Your task to perform on an android device: What's the time in San Francisco? Image 0: 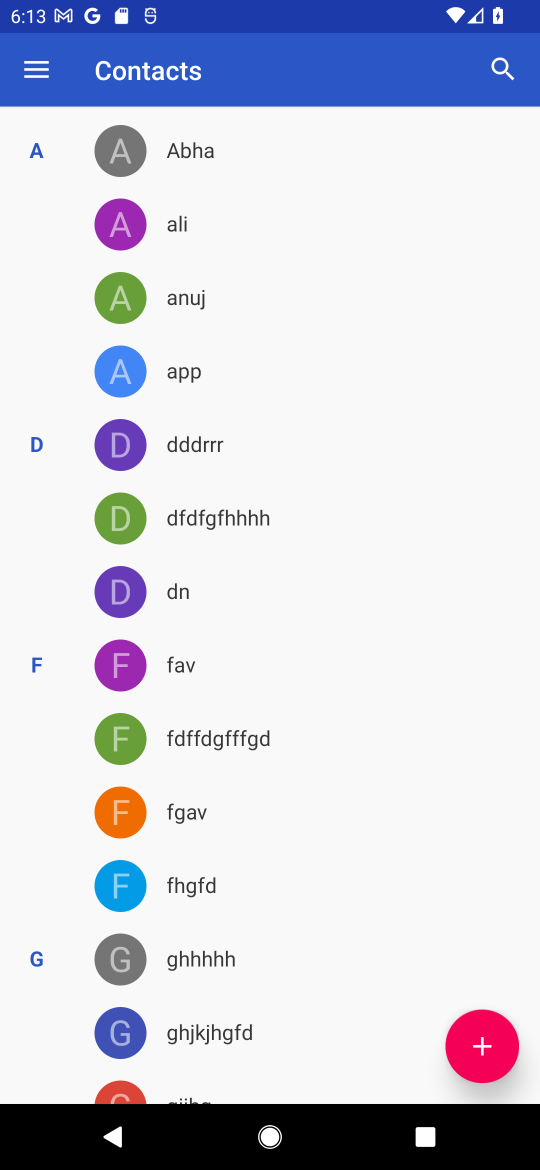
Step 0: press home button
Your task to perform on an android device: What's the time in San Francisco? Image 1: 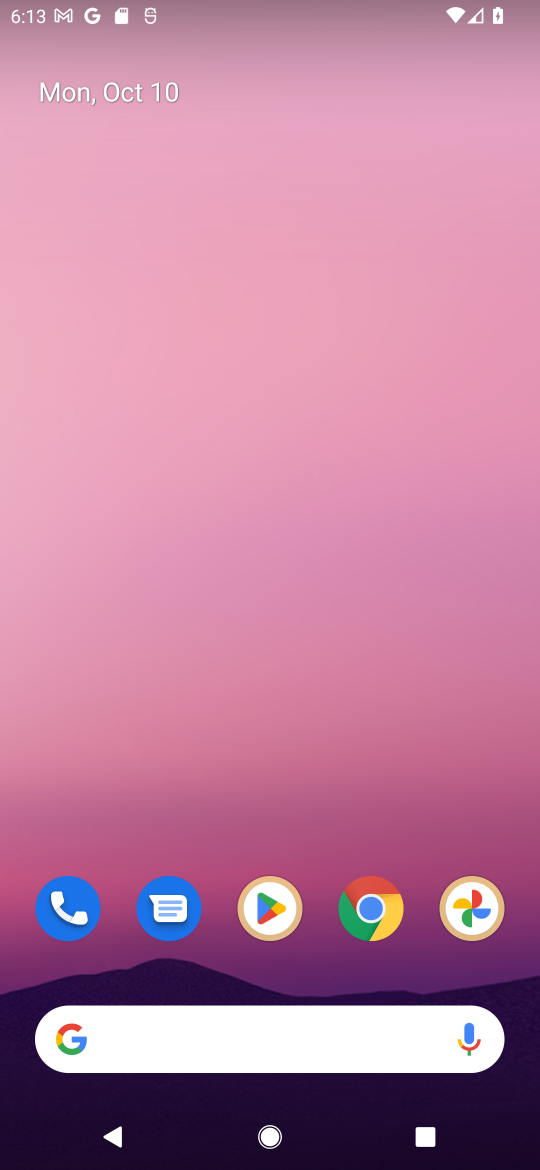
Step 1: drag from (296, 966) to (147, 125)
Your task to perform on an android device: What's the time in San Francisco? Image 2: 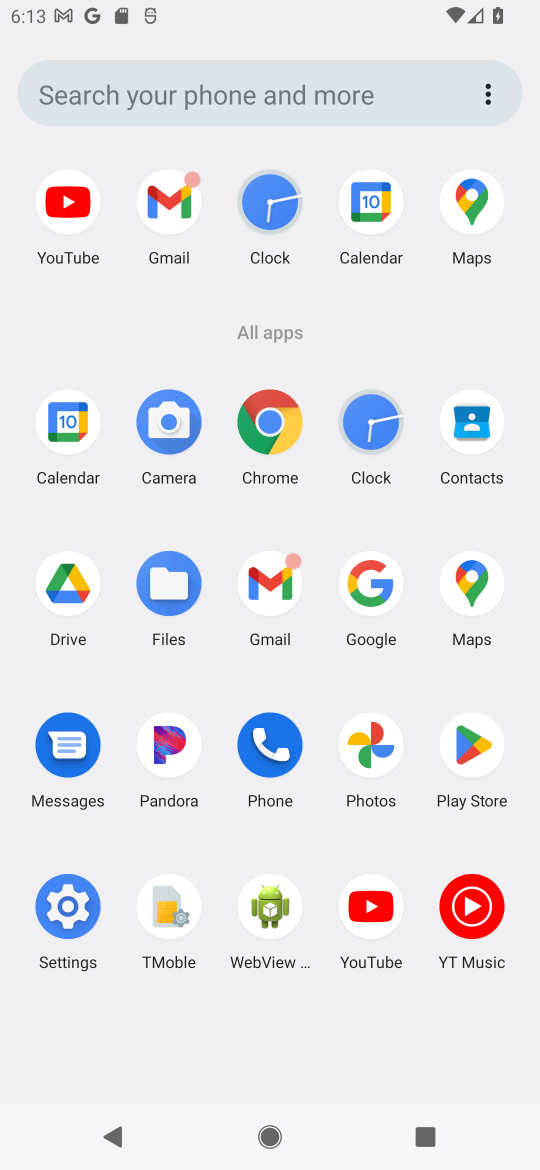
Step 2: click (269, 425)
Your task to perform on an android device: What's the time in San Francisco? Image 3: 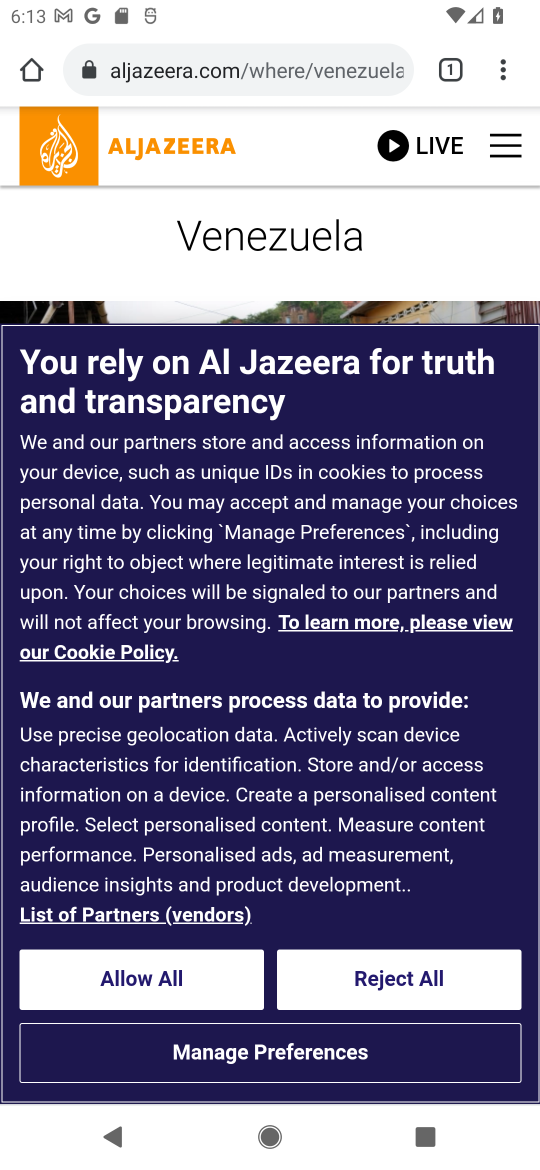
Step 3: click (293, 60)
Your task to perform on an android device: What's the time in San Francisco? Image 4: 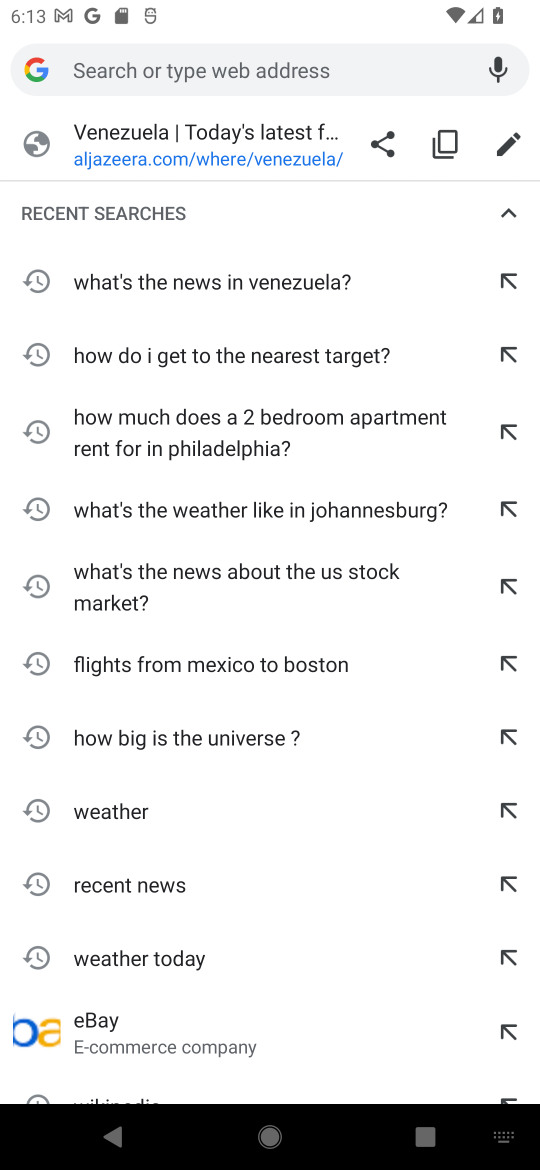
Step 4: type "What's the time in San Francisco?"
Your task to perform on an android device: What's the time in San Francisco? Image 5: 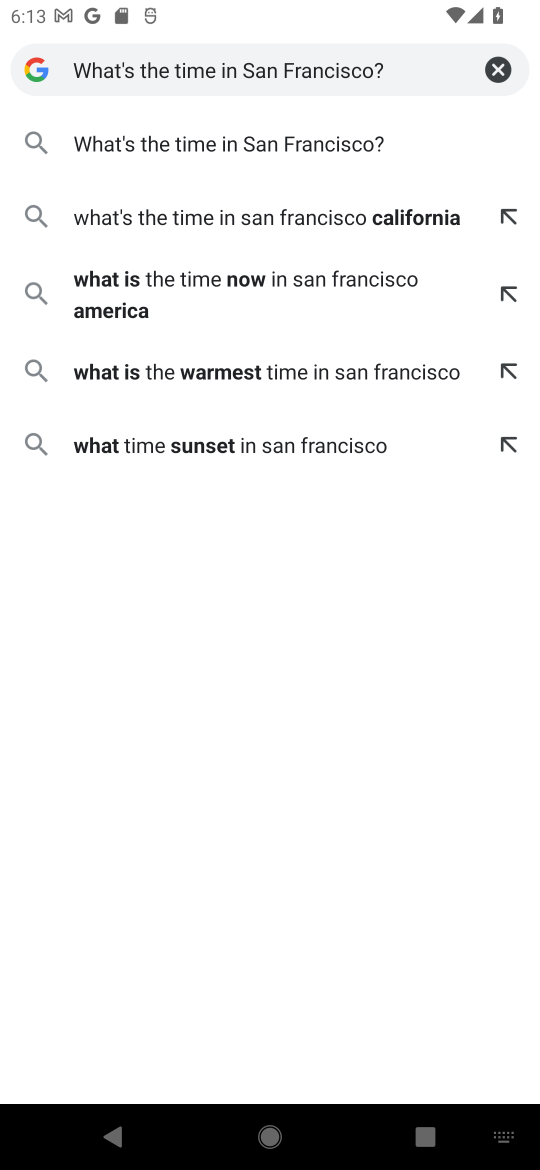
Step 5: press enter
Your task to perform on an android device: What's the time in San Francisco? Image 6: 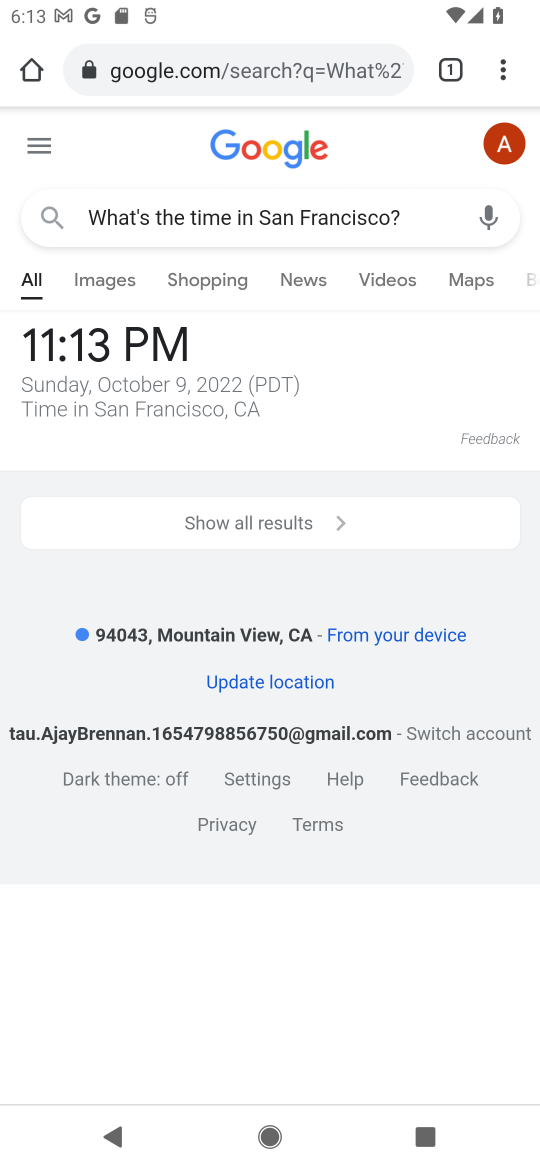
Step 6: task complete